Your task to perform on an android device: change your default location settings in chrome Image 0: 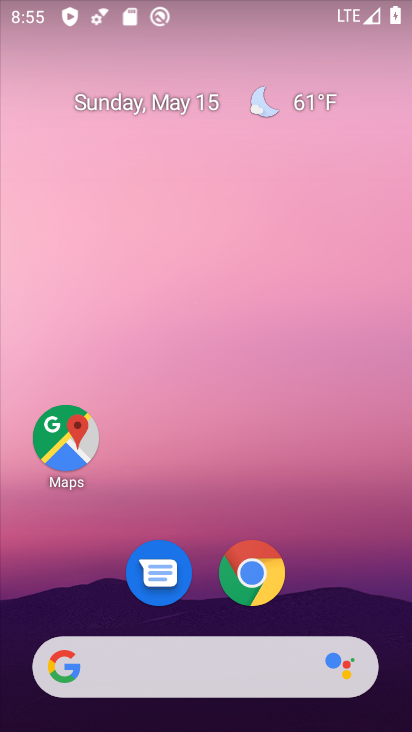
Step 0: press home button
Your task to perform on an android device: change your default location settings in chrome Image 1: 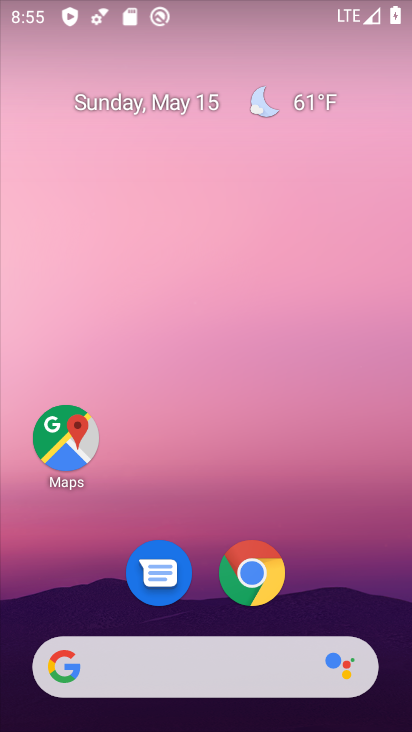
Step 1: drag from (42, 570) to (322, 104)
Your task to perform on an android device: change your default location settings in chrome Image 2: 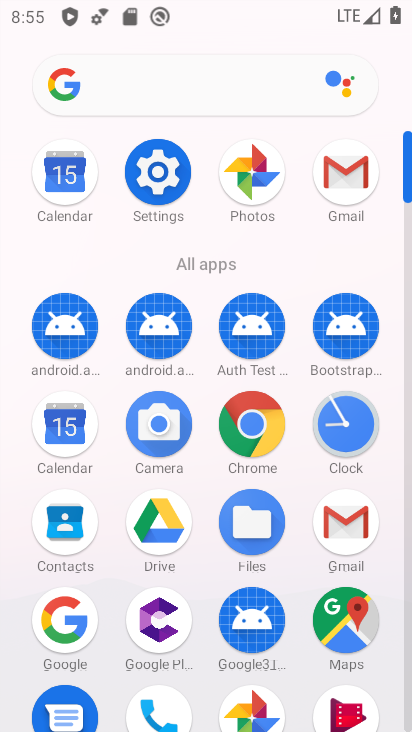
Step 2: click (155, 177)
Your task to perform on an android device: change your default location settings in chrome Image 3: 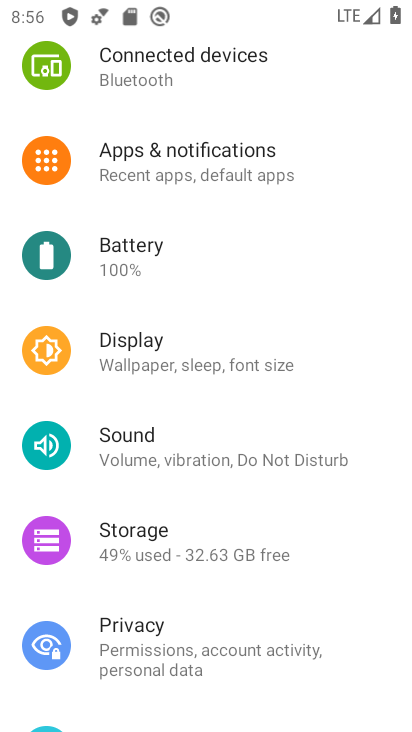
Step 3: press home button
Your task to perform on an android device: change your default location settings in chrome Image 4: 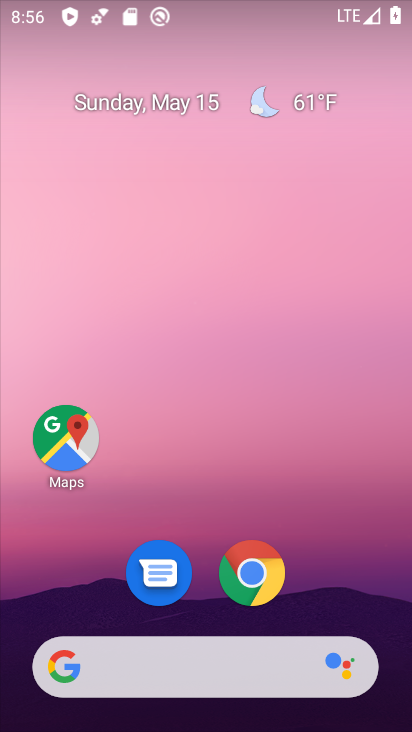
Step 4: click (245, 571)
Your task to perform on an android device: change your default location settings in chrome Image 5: 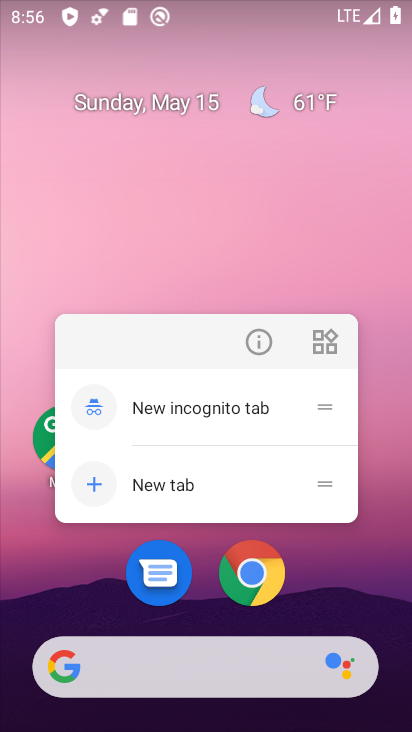
Step 5: click (255, 568)
Your task to perform on an android device: change your default location settings in chrome Image 6: 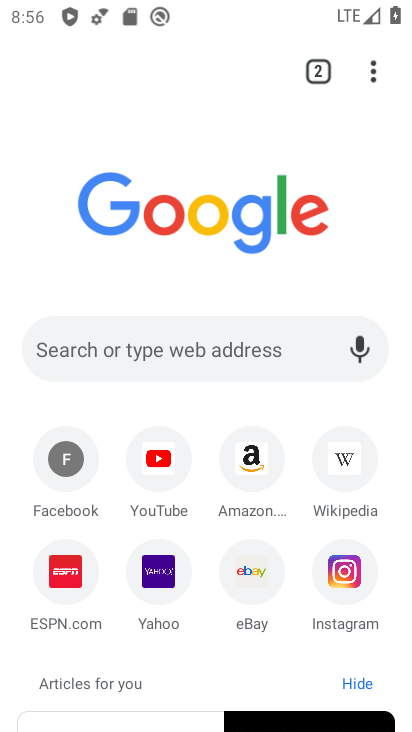
Step 6: click (363, 76)
Your task to perform on an android device: change your default location settings in chrome Image 7: 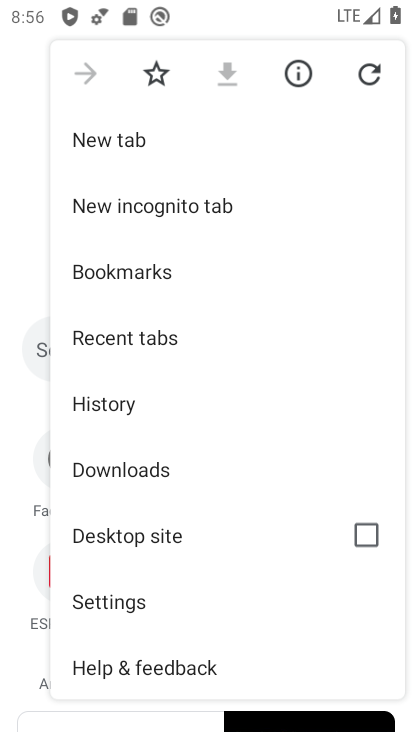
Step 7: click (123, 589)
Your task to perform on an android device: change your default location settings in chrome Image 8: 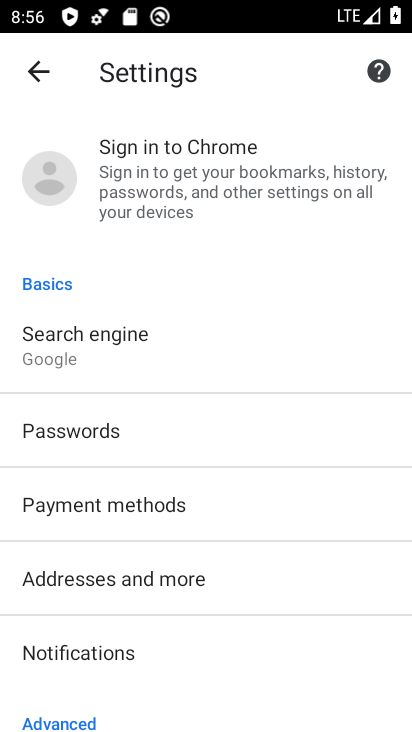
Step 8: drag from (142, 659) to (319, 103)
Your task to perform on an android device: change your default location settings in chrome Image 9: 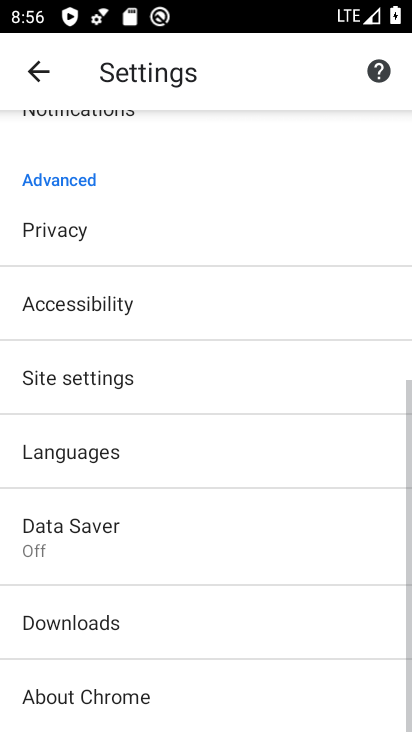
Step 9: drag from (92, 696) to (250, 210)
Your task to perform on an android device: change your default location settings in chrome Image 10: 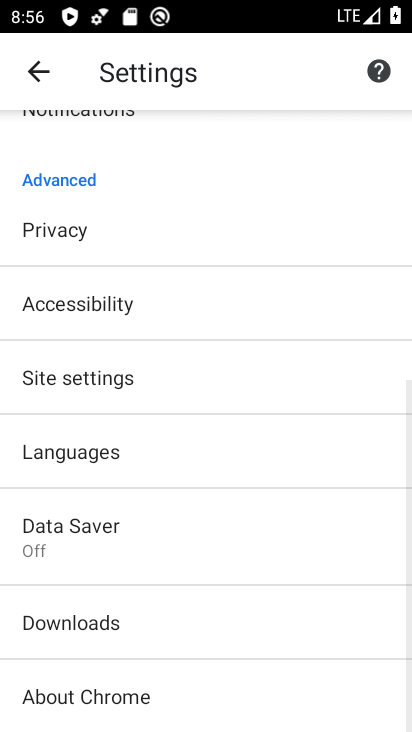
Step 10: click (114, 363)
Your task to perform on an android device: change your default location settings in chrome Image 11: 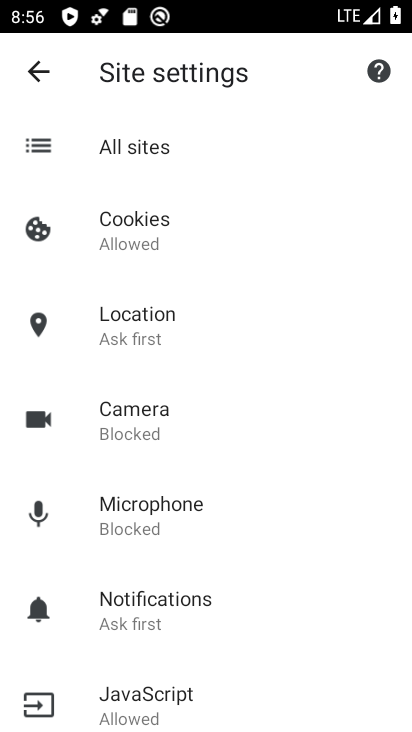
Step 11: drag from (134, 688) to (267, 182)
Your task to perform on an android device: change your default location settings in chrome Image 12: 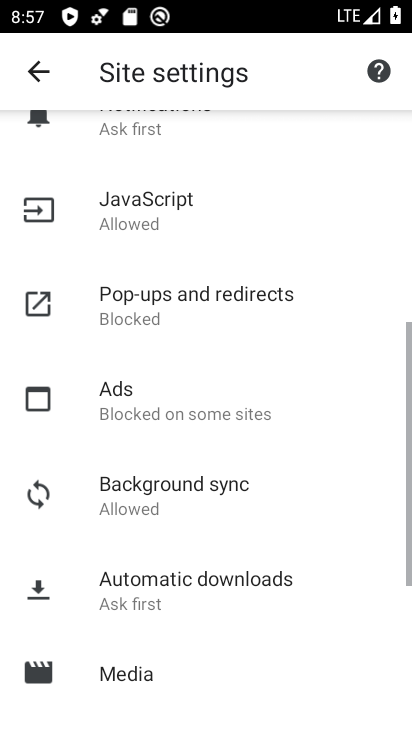
Step 12: drag from (162, 151) to (94, 549)
Your task to perform on an android device: change your default location settings in chrome Image 13: 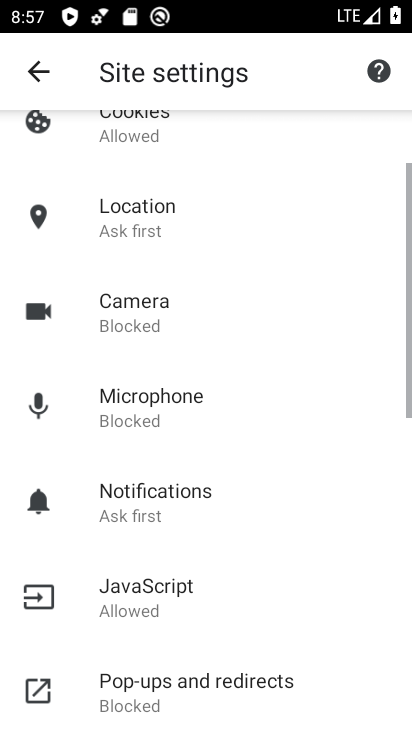
Step 13: click (163, 228)
Your task to perform on an android device: change your default location settings in chrome Image 14: 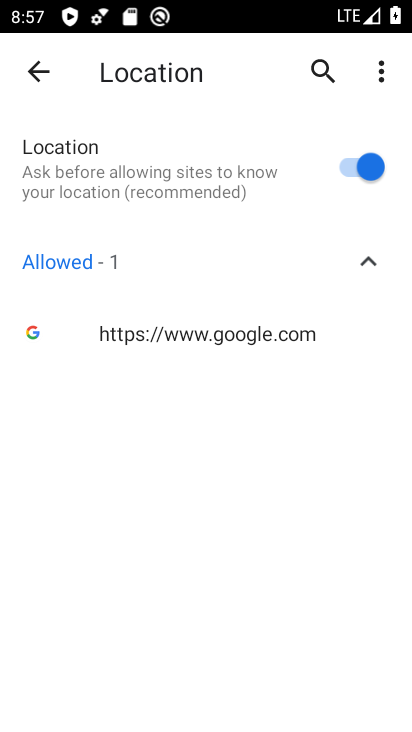
Step 14: click (377, 162)
Your task to perform on an android device: change your default location settings in chrome Image 15: 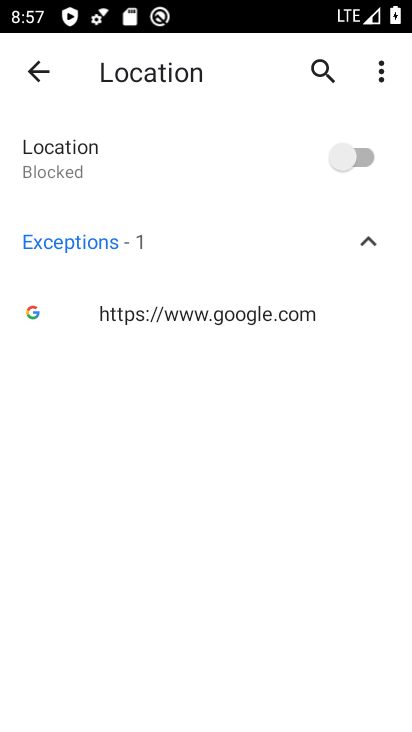
Step 15: task complete